Your task to perform on an android device: Clear the shopping cart on amazon. Add "razer blade" to the cart on amazon Image 0: 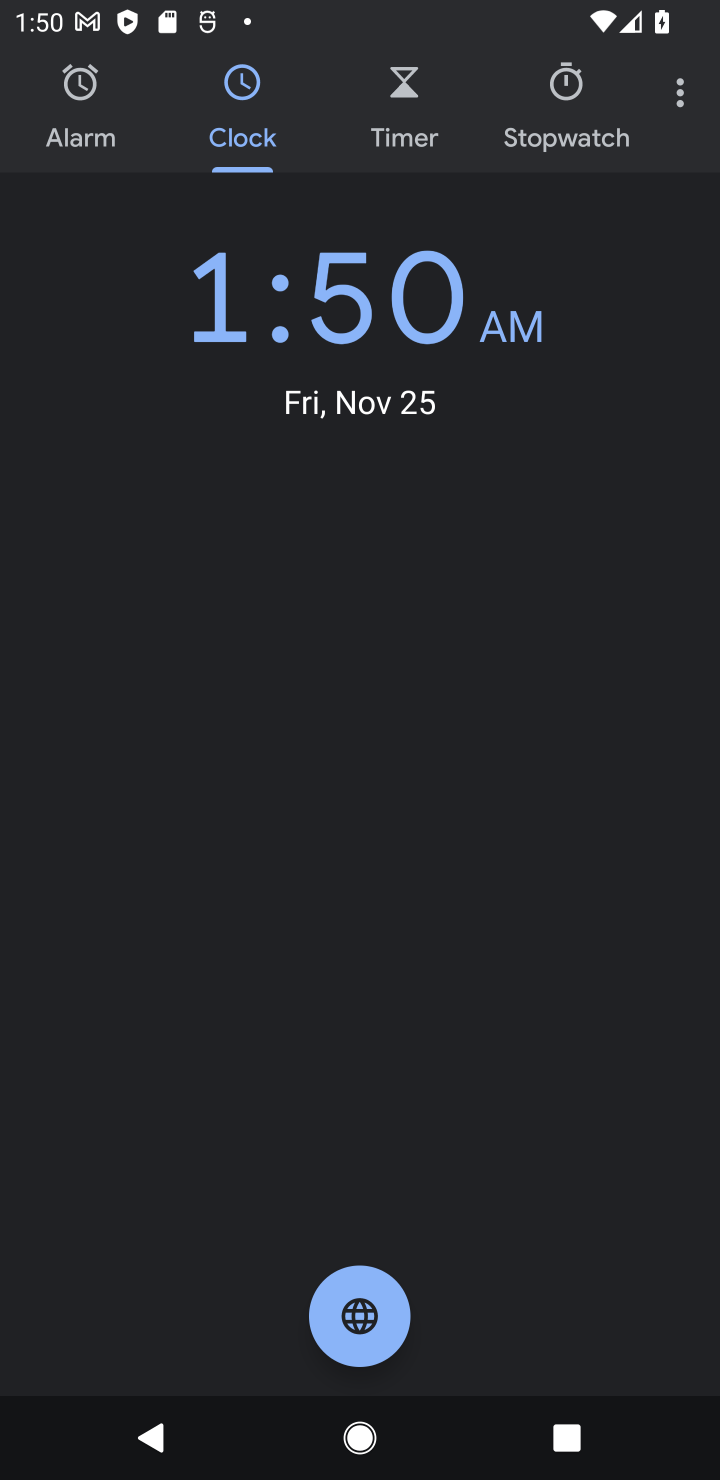
Step 0: task complete